Your task to perform on an android device: Add macbook pro 13 inch to the cart on target, then select checkout. Image 0: 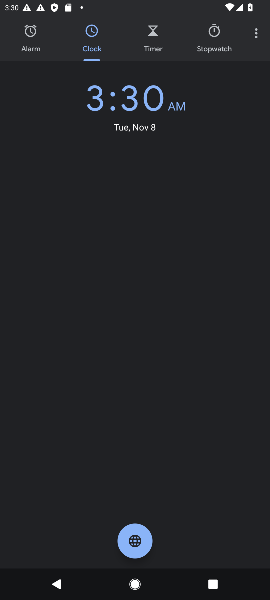
Step 0: press home button
Your task to perform on an android device: Add macbook pro 13 inch to the cart on target, then select checkout. Image 1: 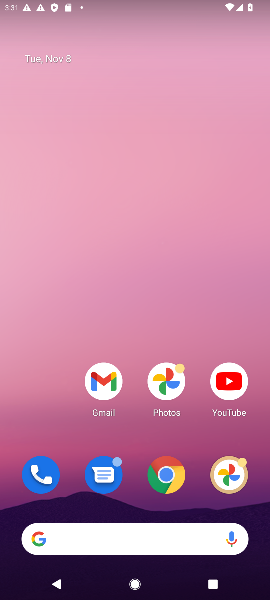
Step 1: drag from (104, 537) to (110, 195)
Your task to perform on an android device: Add macbook pro 13 inch to the cart on target, then select checkout. Image 2: 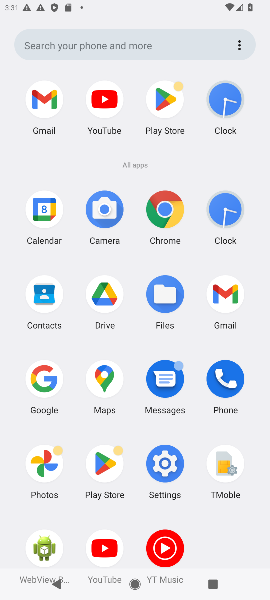
Step 2: click (38, 376)
Your task to perform on an android device: Add macbook pro 13 inch to the cart on target, then select checkout. Image 3: 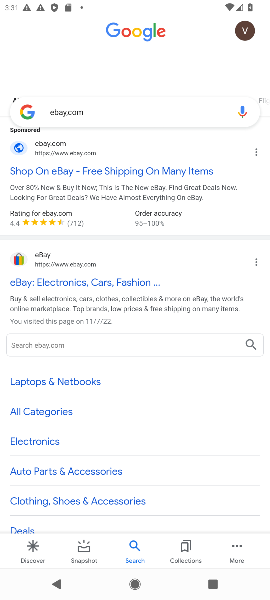
Step 3: click (93, 104)
Your task to perform on an android device: Add macbook pro 13 inch to the cart on target, then select checkout. Image 4: 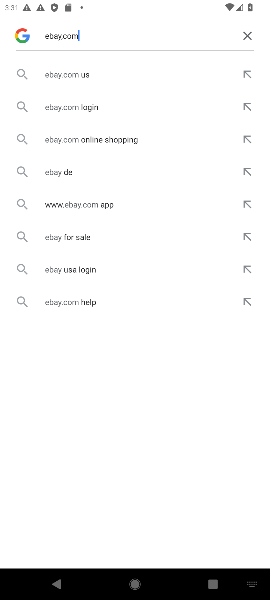
Step 4: click (246, 33)
Your task to perform on an android device: Add macbook pro 13 inch to the cart on target, then select checkout. Image 5: 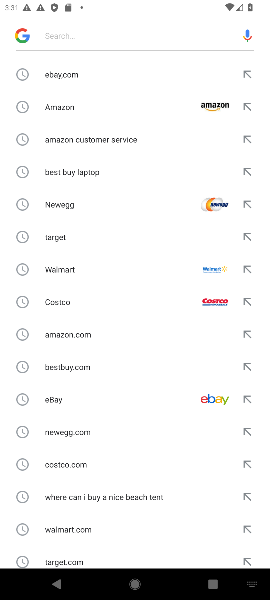
Step 5: click (103, 33)
Your task to perform on an android device: Add macbook pro 13 inch to the cart on target, then select checkout. Image 6: 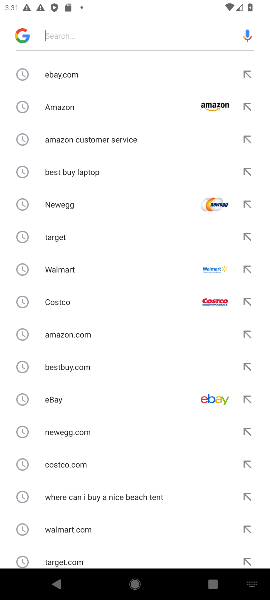
Step 6: type "target "
Your task to perform on an android device: Add macbook pro 13 inch to the cart on target, then select checkout. Image 7: 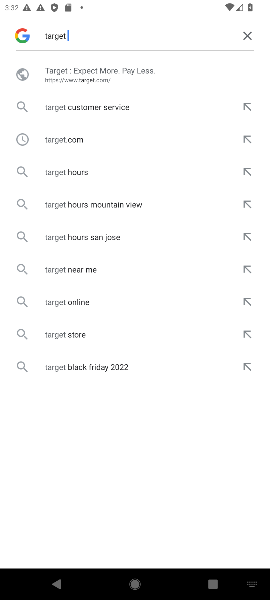
Step 7: click (84, 67)
Your task to perform on an android device: Add macbook pro 13 inch to the cart on target, then select checkout. Image 8: 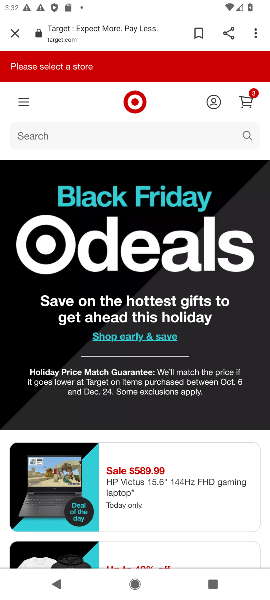
Step 8: click (67, 131)
Your task to perform on an android device: Add macbook pro 13 inch to the cart on target, then select checkout. Image 9: 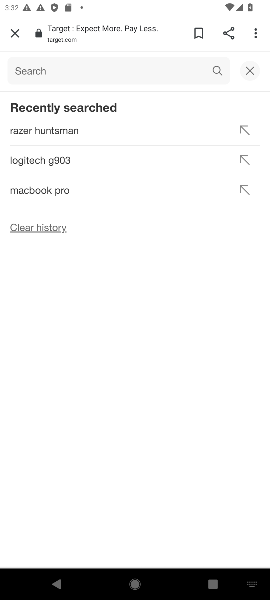
Step 9: click (58, 64)
Your task to perform on an android device: Add macbook pro 13 inch to the cart on target, then select checkout. Image 10: 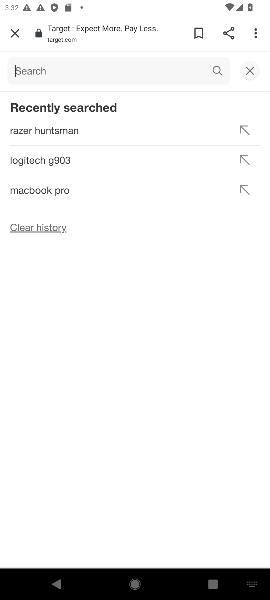
Step 10: type "macbook pro 13 inch  "
Your task to perform on an android device: Add macbook pro 13 inch to the cart on target, then select checkout. Image 11: 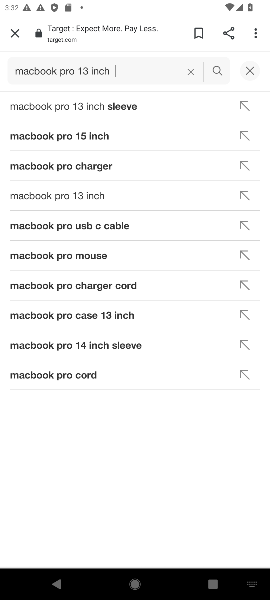
Step 11: click (78, 109)
Your task to perform on an android device: Add macbook pro 13 inch to the cart on target, then select checkout. Image 12: 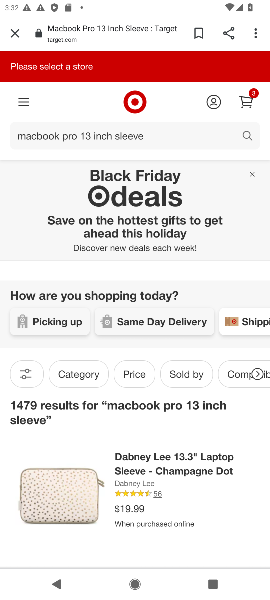
Step 12: drag from (161, 519) to (172, 225)
Your task to perform on an android device: Add macbook pro 13 inch to the cart on target, then select checkout. Image 13: 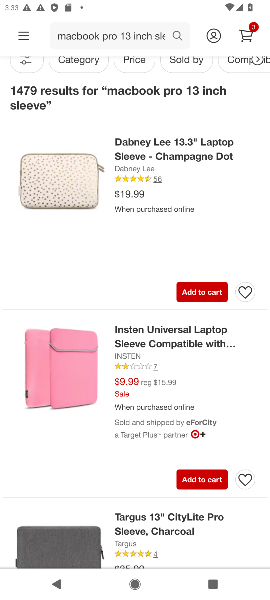
Step 13: drag from (115, 191) to (140, 433)
Your task to perform on an android device: Add macbook pro 13 inch to the cart on target, then select checkout. Image 14: 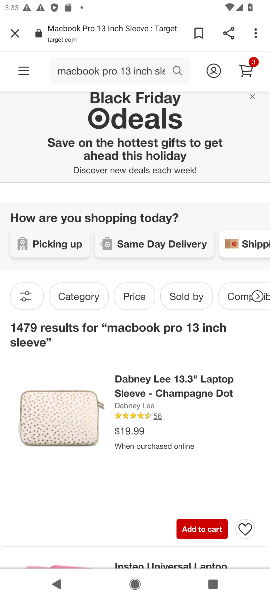
Step 14: click (156, 69)
Your task to perform on an android device: Add macbook pro 13 inch to the cart on target, then select checkout. Image 15: 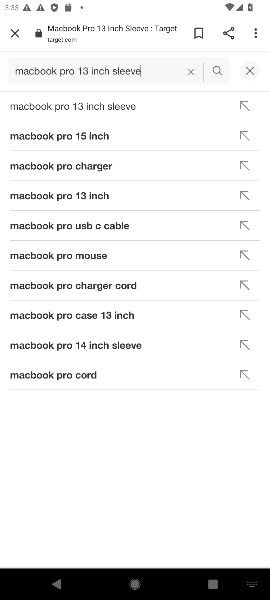
Step 15: click (61, 191)
Your task to perform on an android device: Add macbook pro 13 inch to the cart on target, then select checkout. Image 16: 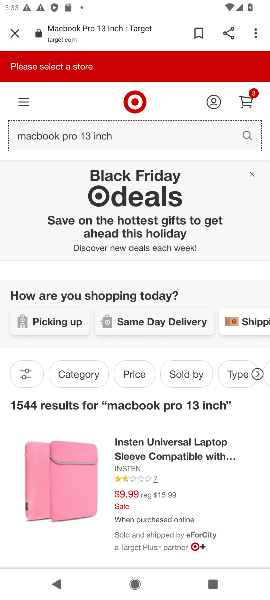
Step 16: drag from (176, 567) to (164, 198)
Your task to perform on an android device: Add macbook pro 13 inch to the cart on target, then select checkout. Image 17: 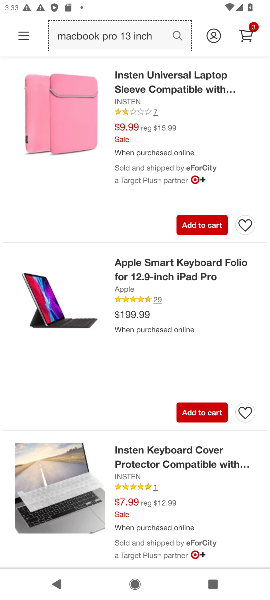
Step 17: click (187, 407)
Your task to perform on an android device: Add macbook pro 13 inch to the cart on target, then select checkout. Image 18: 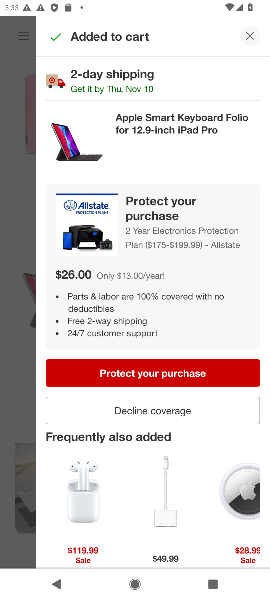
Step 18: task complete